Your task to perform on an android device: turn off wifi Image 0: 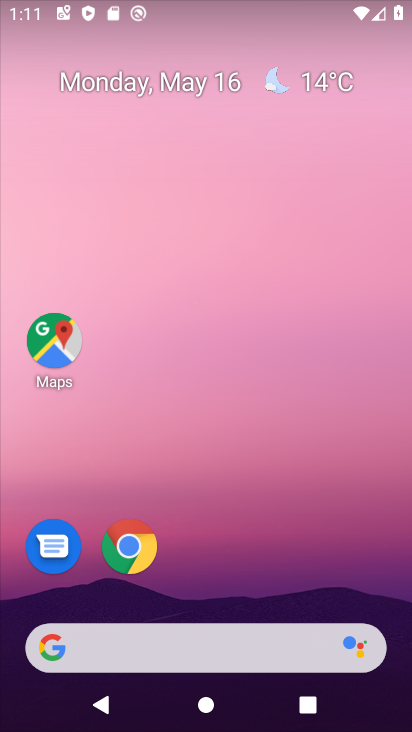
Step 0: drag from (267, 668) to (292, 188)
Your task to perform on an android device: turn off wifi Image 1: 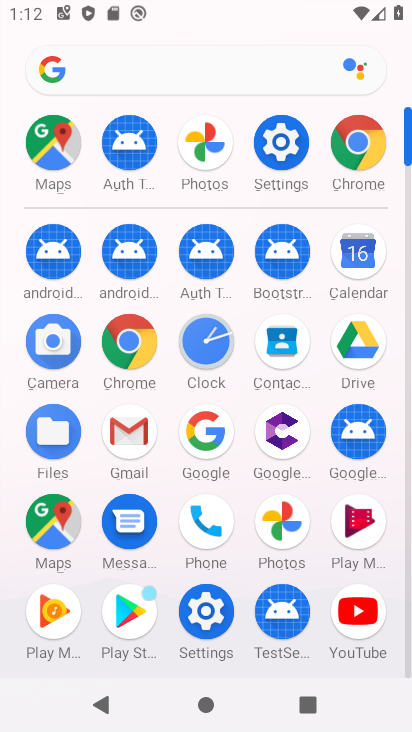
Step 1: click (264, 157)
Your task to perform on an android device: turn off wifi Image 2: 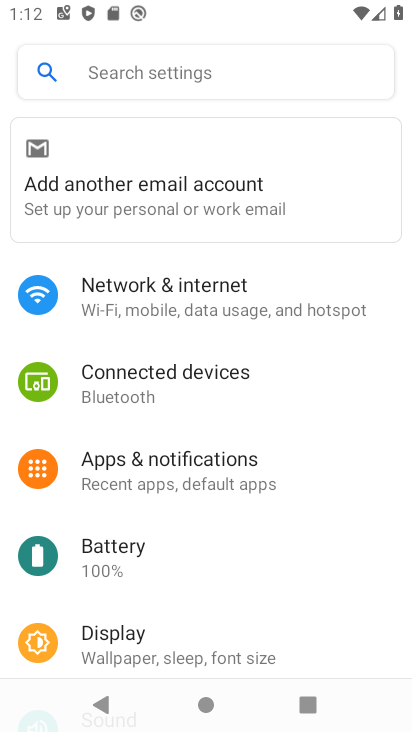
Step 2: click (164, 283)
Your task to perform on an android device: turn off wifi Image 3: 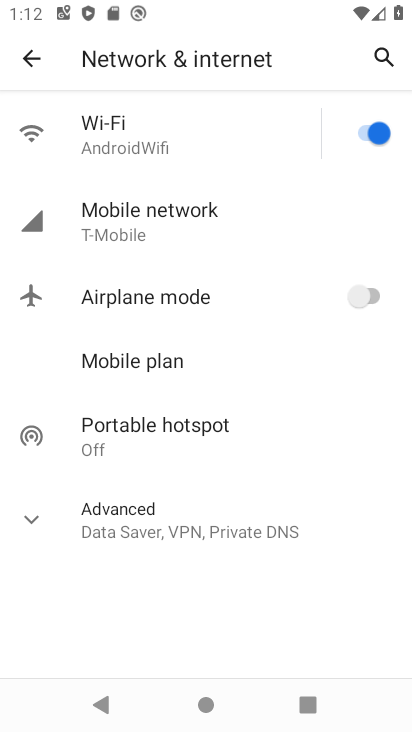
Step 3: click (184, 139)
Your task to perform on an android device: turn off wifi Image 4: 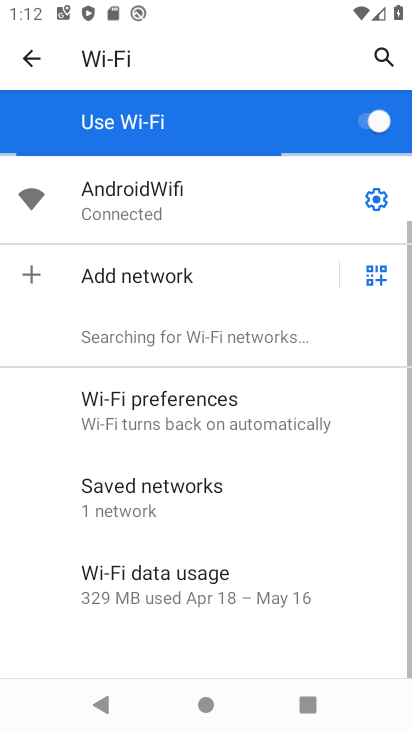
Step 4: click (359, 137)
Your task to perform on an android device: turn off wifi Image 5: 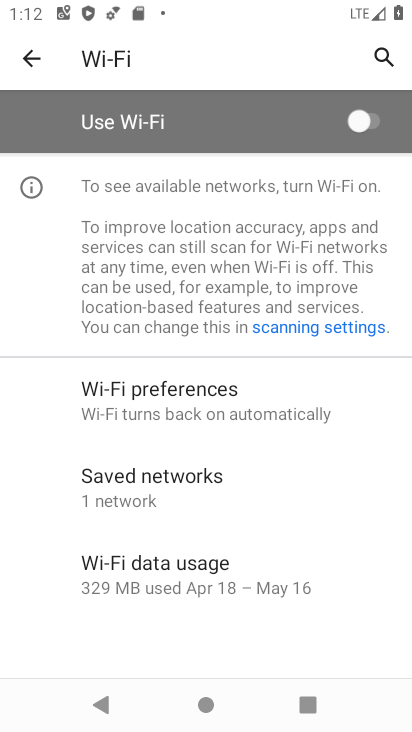
Step 5: task complete